Your task to perform on an android device: stop showing notifications on the lock screen Image 0: 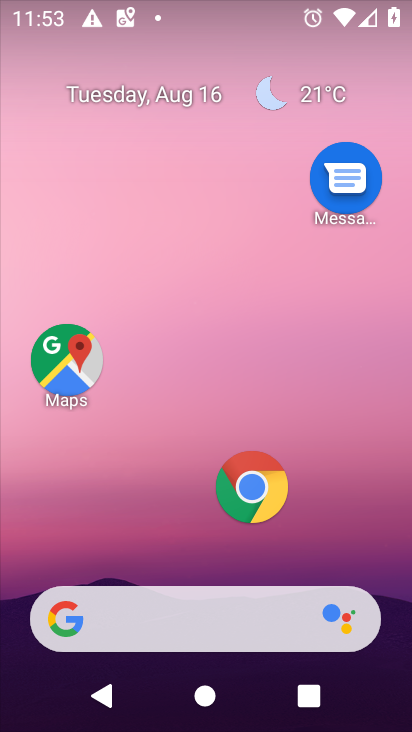
Step 0: drag from (144, 492) to (223, 51)
Your task to perform on an android device: stop showing notifications on the lock screen Image 1: 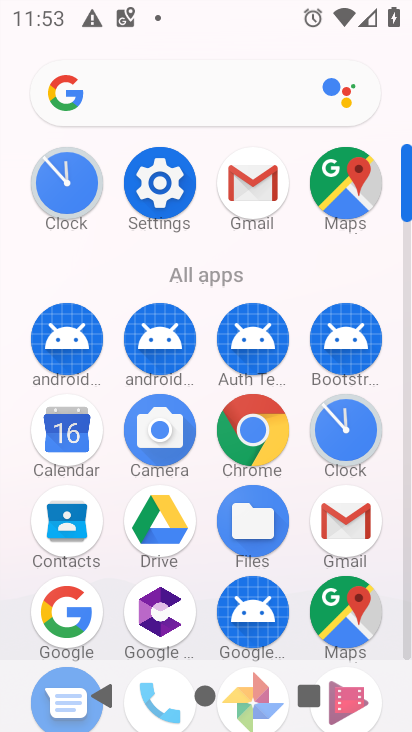
Step 1: click (168, 174)
Your task to perform on an android device: stop showing notifications on the lock screen Image 2: 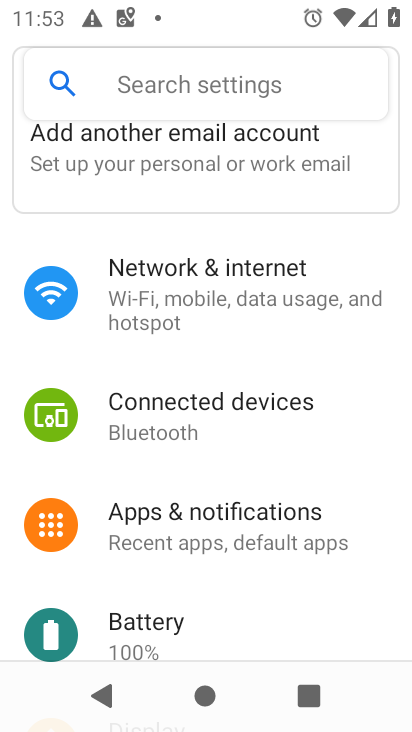
Step 2: click (263, 508)
Your task to perform on an android device: stop showing notifications on the lock screen Image 3: 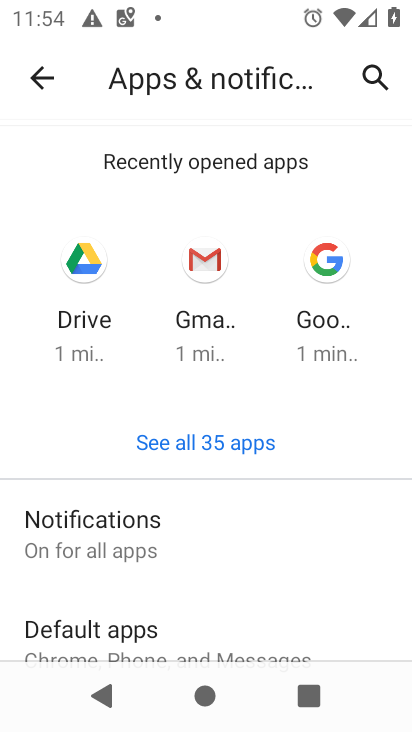
Step 3: click (179, 539)
Your task to perform on an android device: stop showing notifications on the lock screen Image 4: 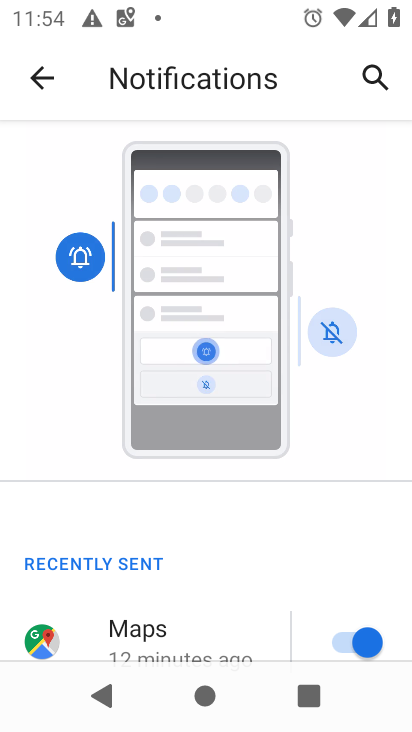
Step 4: drag from (155, 618) to (296, 5)
Your task to perform on an android device: stop showing notifications on the lock screen Image 5: 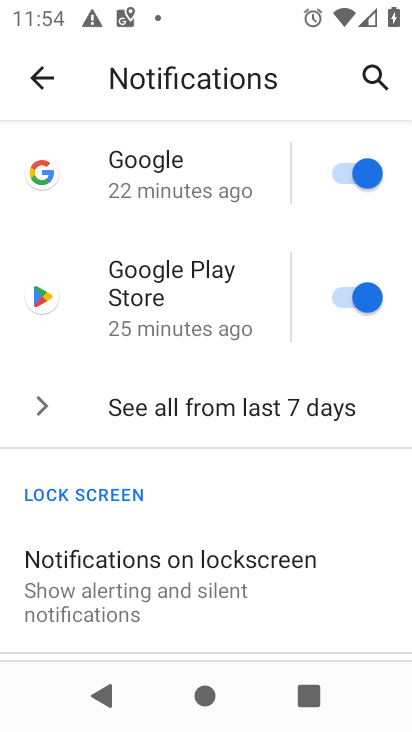
Step 5: click (155, 595)
Your task to perform on an android device: stop showing notifications on the lock screen Image 6: 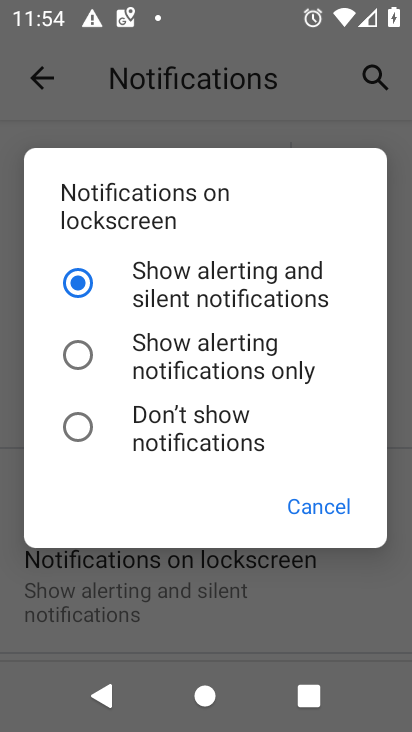
Step 6: click (66, 429)
Your task to perform on an android device: stop showing notifications on the lock screen Image 7: 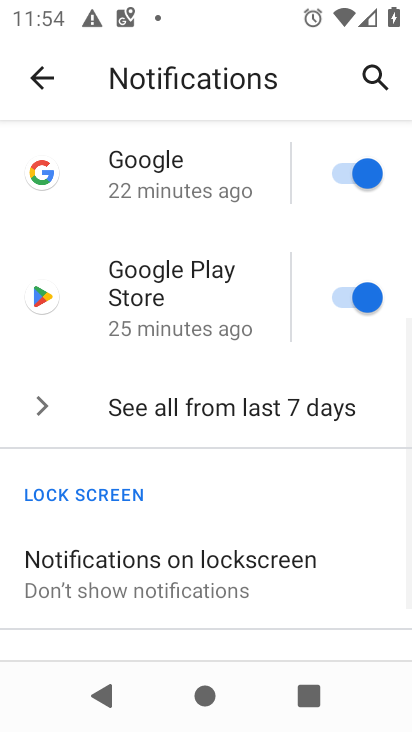
Step 7: task complete